Your task to perform on an android device: Go to battery settings Image 0: 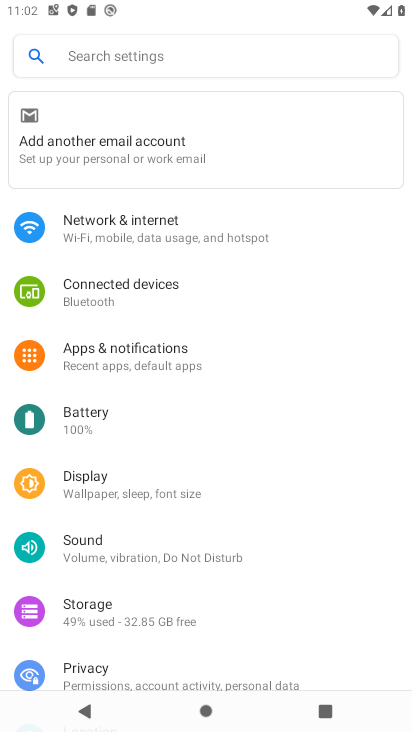
Step 0: drag from (330, 617) to (338, 375)
Your task to perform on an android device: Go to battery settings Image 1: 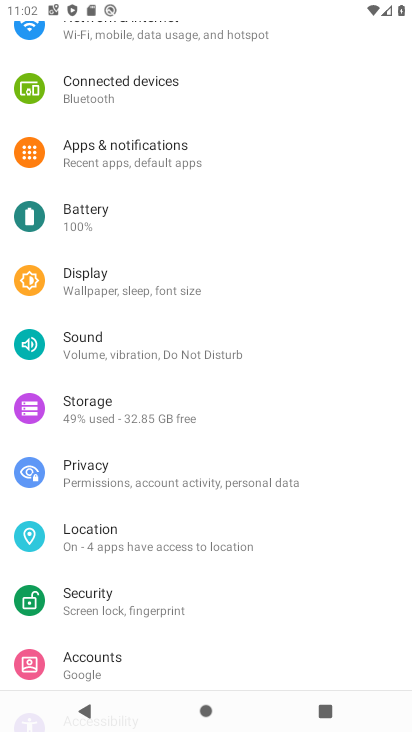
Step 1: drag from (319, 620) to (330, 410)
Your task to perform on an android device: Go to battery settings Image 2: 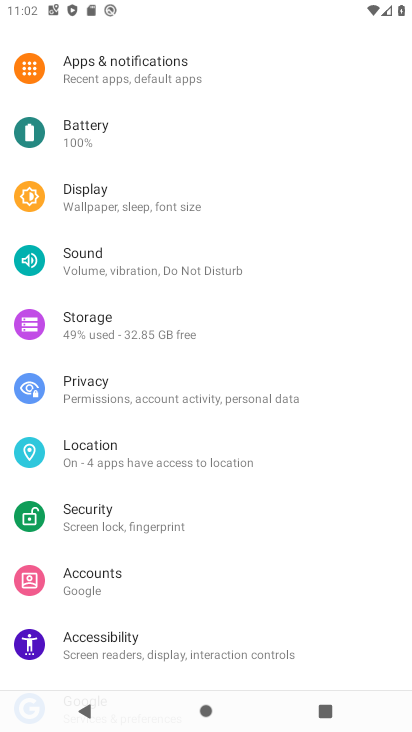
Step 2: drag from (303, 602) to (320, 363)
Your task to perform on an android device: Go to battery settings Image 3: 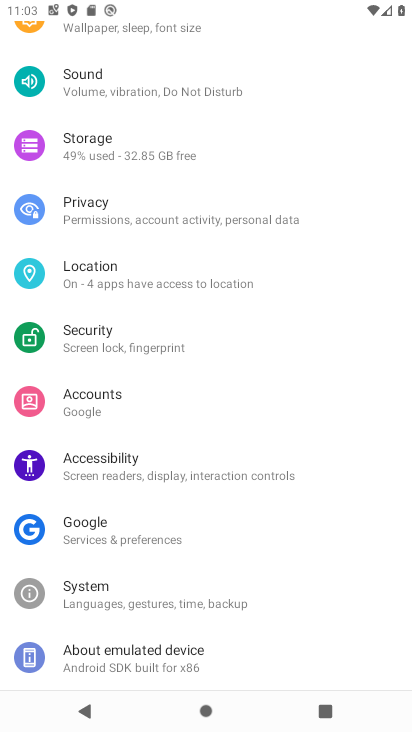
Step 3: drag from (291, 633) to (300, 405)
Your task to perform on an android device: Go to battery settings Image 4: 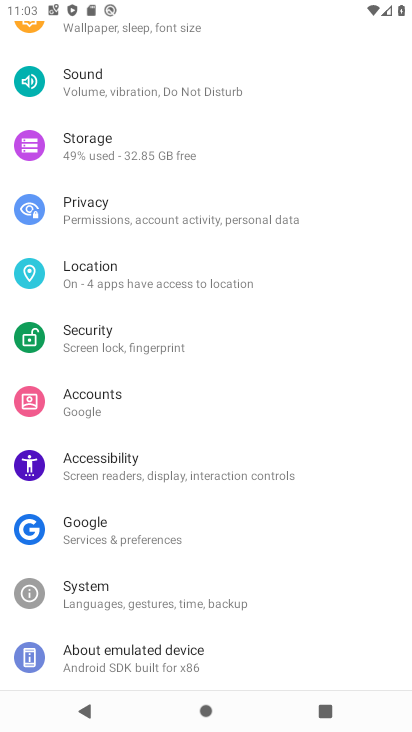
Step 4: drag from (317, 254) to (311, 436)
Your task to perform on an android device: Go to battery settings Image 5: 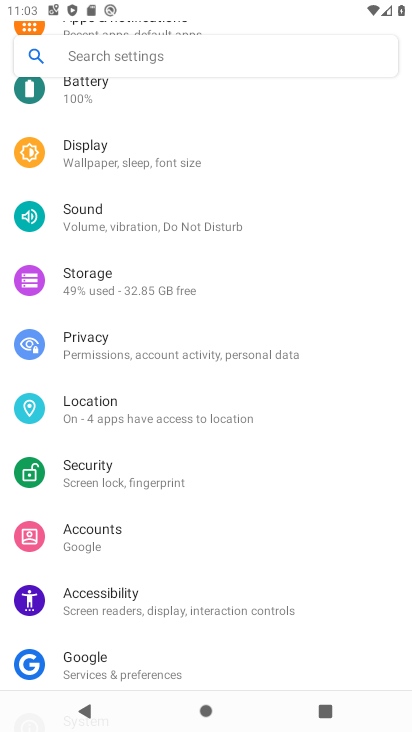
Step 5: drag from (330, 251) to (334, 434)
Your task to perform on an android device: Go to battery settings Image 6: 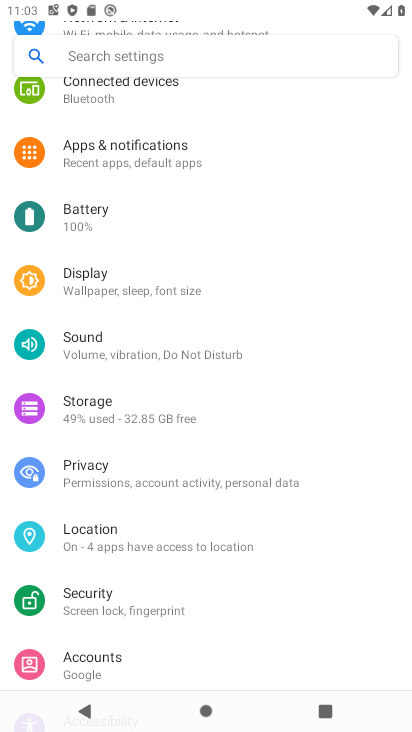
Step 6: drag from (314, 244) to (308, 413)
Your task to perform on an android device: Go to battery settings Image 7: 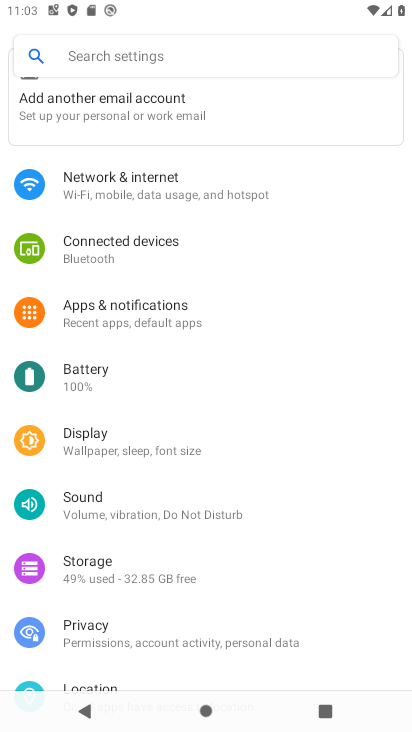
Step 7: drag from (299, 254) to (309, 411)
Your task to perform on an android device: Go to battery settings Image 8: 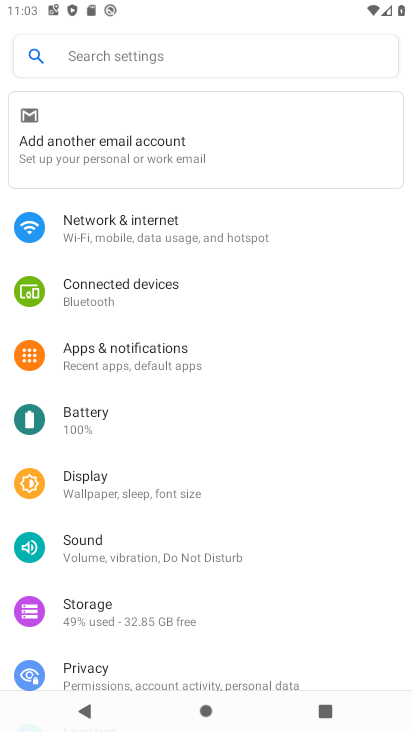
Step 8: drag from (312, 265) to (299, 427)
Your task to perform on an android device: Go to battery settings Image 9: 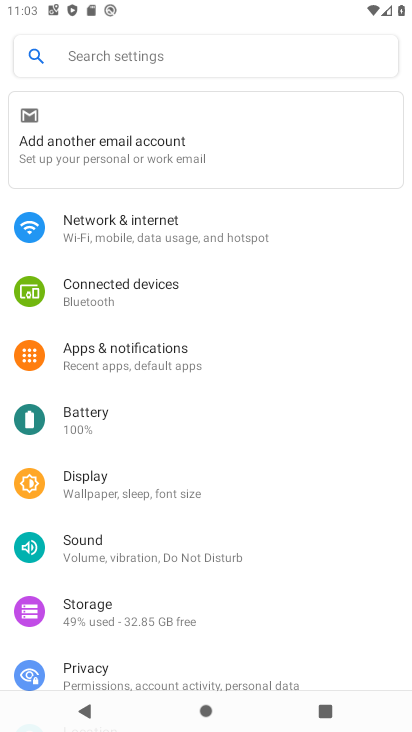
Step 9: click (113, 418)
Your task to perform on an android device: Go to battery settings Image 10: 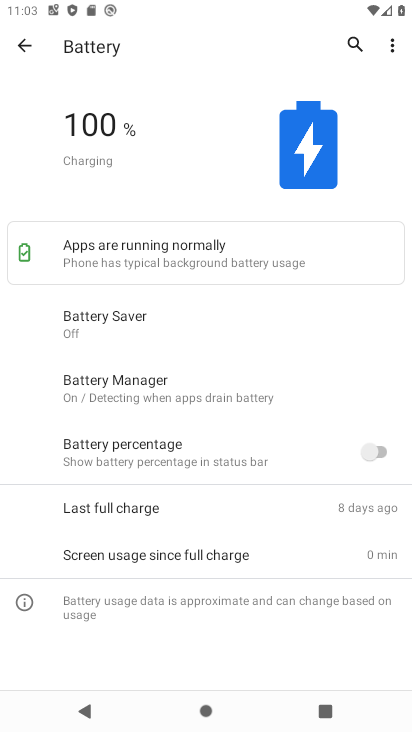
Step 10: task complete